Your task to perform on an android device: Go to Android settings Image 0: 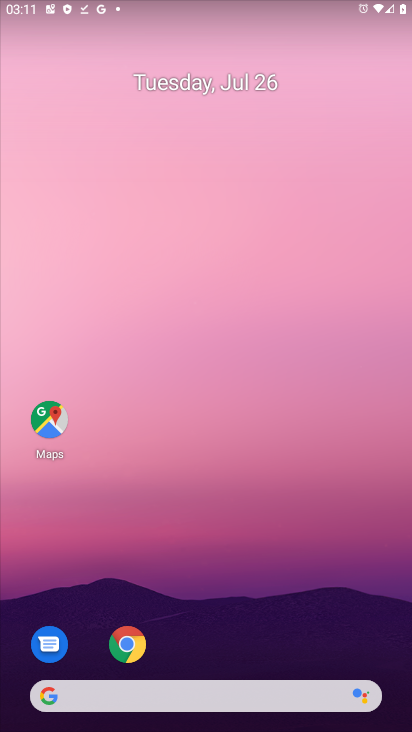
Step 0: drag from (183, 671) to (178, 124)
Your task to perform on an android device: Go to Android settings Image 1: 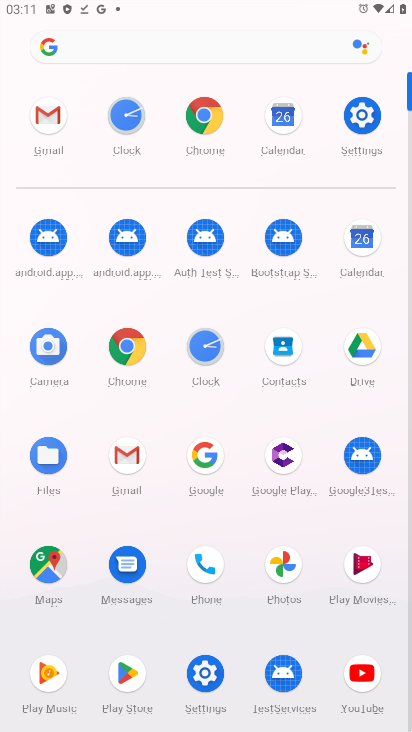
Step 1: click (202, 671)
Your task to perform on an android device: Go to Android settings Image 2: 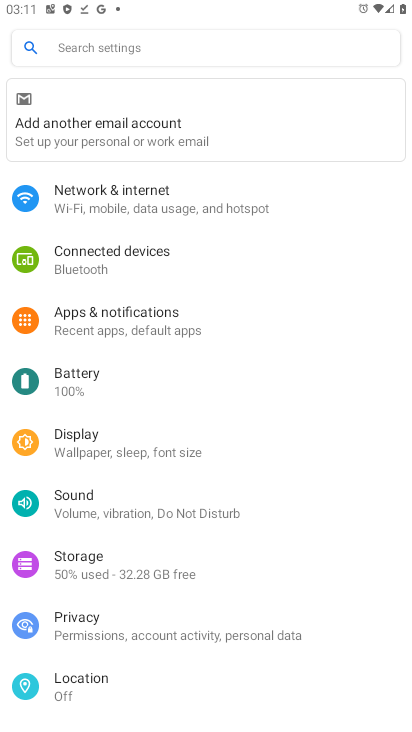
Step 2: task complete